Your task to perform on an android device: Open notification settings Image 0: 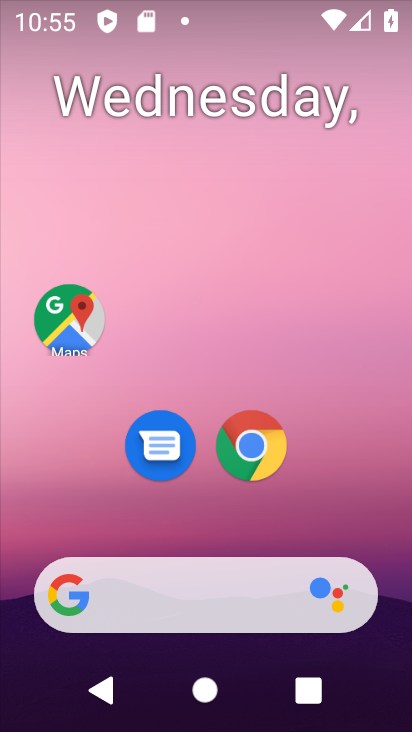
Step 0: drag from (184, 548) to (236, 142)
Your task to perform on an android device: Open notification settings Image 1: 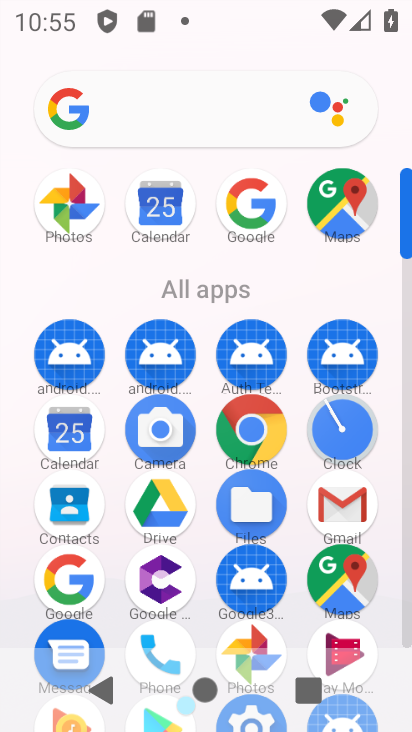
Step 1: drag from (86, 565) to (177, 132)
Your task to perform on an android device: Open notification settings Image 2: 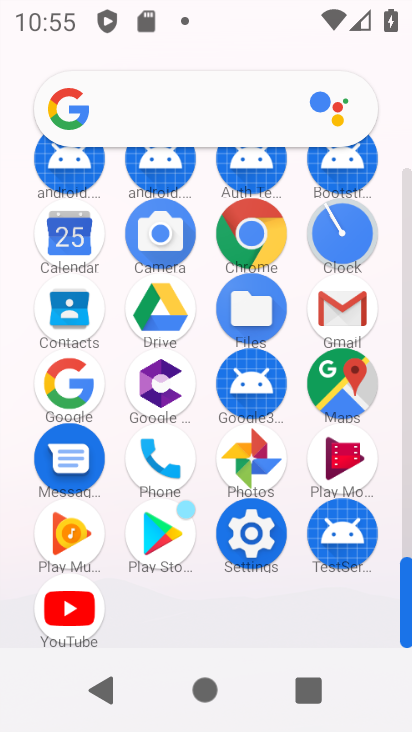
Step 2: click (253, 539)
Your task to perform on an android device: Open notification settings Image 3: 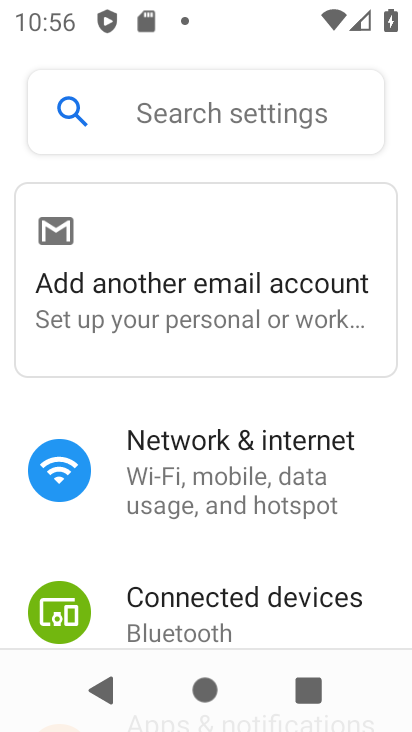
Step 3: drag from (248, 637) to (255, 238)
Your task to perform on an android device: Open notification settings Image 4: 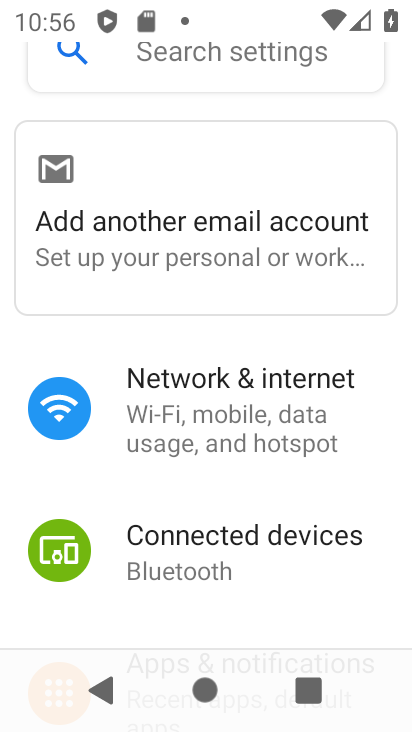
Step 4: drag from (264, 578) to (271, 140)
Your task to perform on an android device: Open notification settings Image 5: 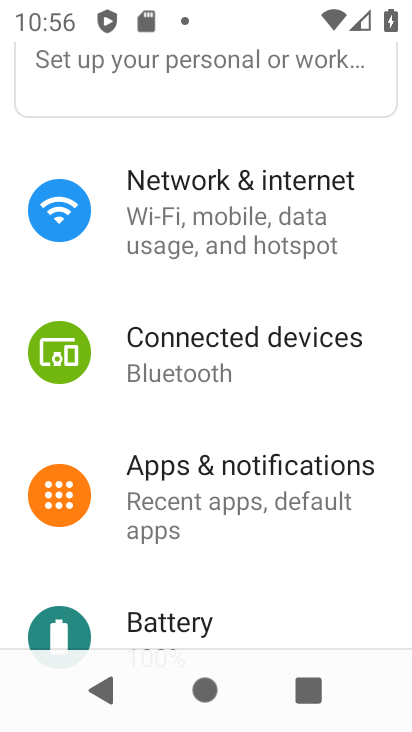
Step 5: click (239, 479)
Your task to perform on an android device: Open notification settings Image 6: 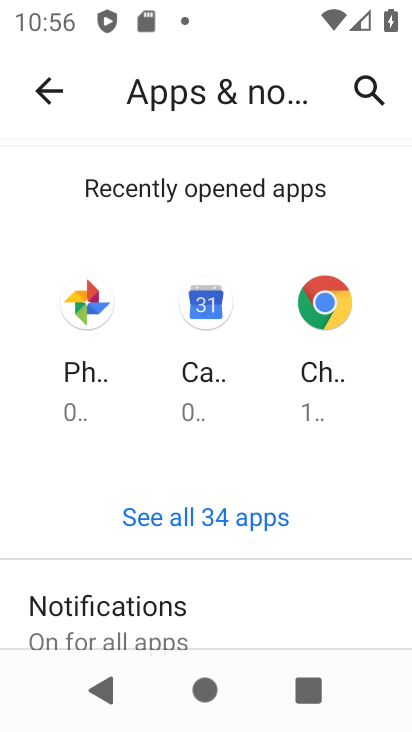
Step 6: click (167, 621)
Your task to perform on an android device: Open notification settings Image 7: 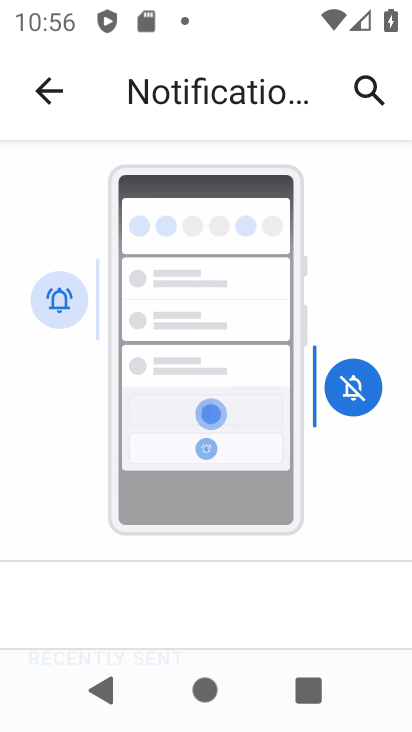
Step 7: task complete